Your task to perform on an android device: Open eBay Image 0: 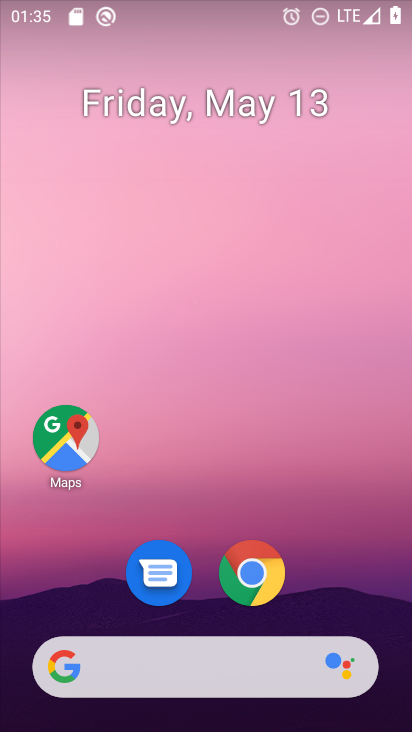
Step 0: click (256, 678)
Your task to perform on an android device: Open eBay Image 1: 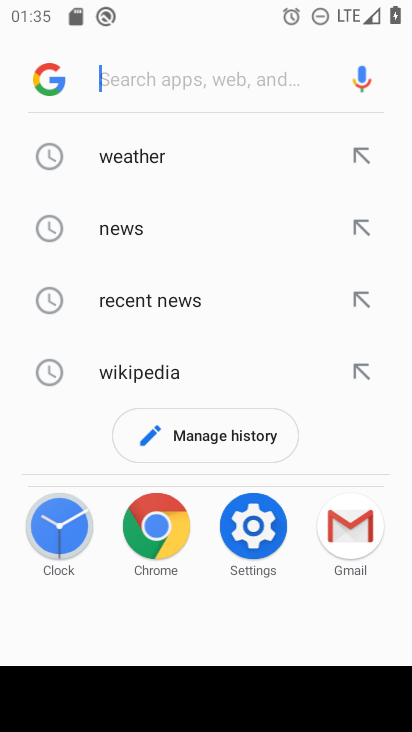
Step 1: type "ebay"
Your task to perform on an android device: Open eBay Image 2: 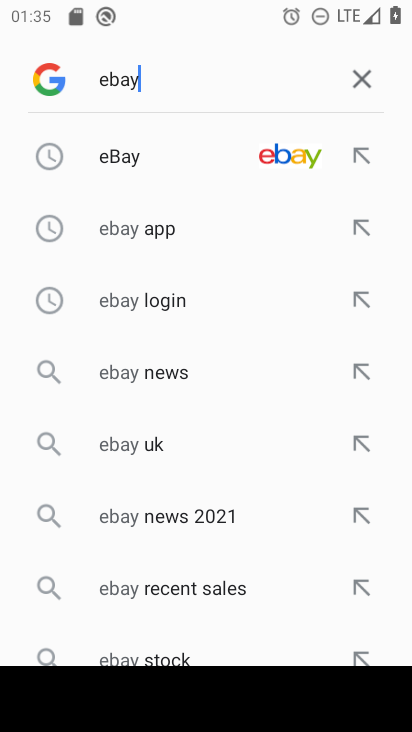
Step 2: click (177, 154)
Your task to perform on an android device: Open eBay Image 3: 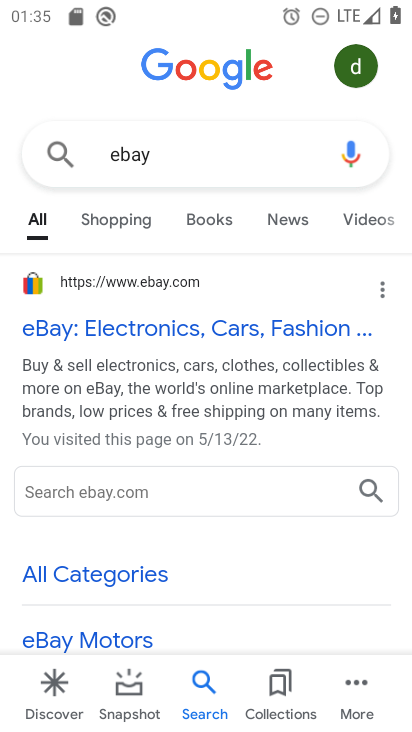
Step 3: click (136, 285)
Your task to perform on an android device: Open eBay Image 4: 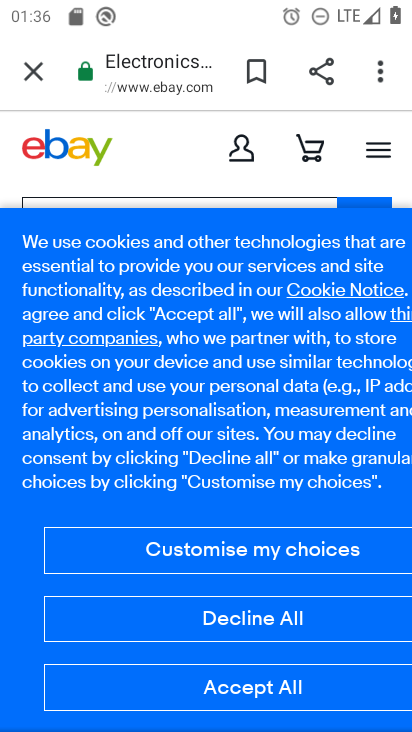
Step 4: task complete